Your task to perform on an android device: What does the iPhone 8 look like? Image 0: 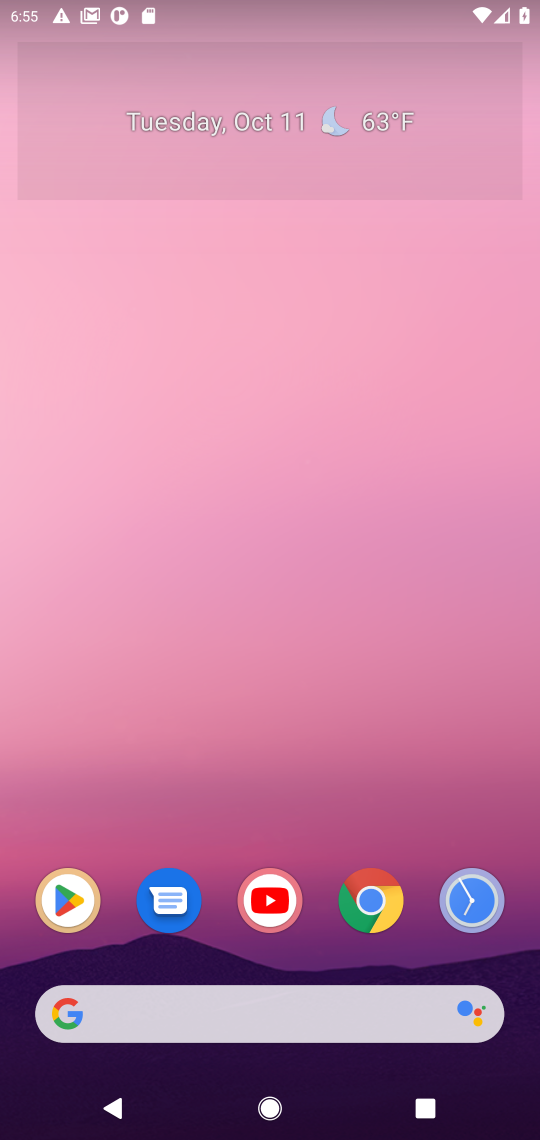
Step 0: click (367, 891)
Your task to perform on an android device: What does the iPhone 8 look like? Image 1: 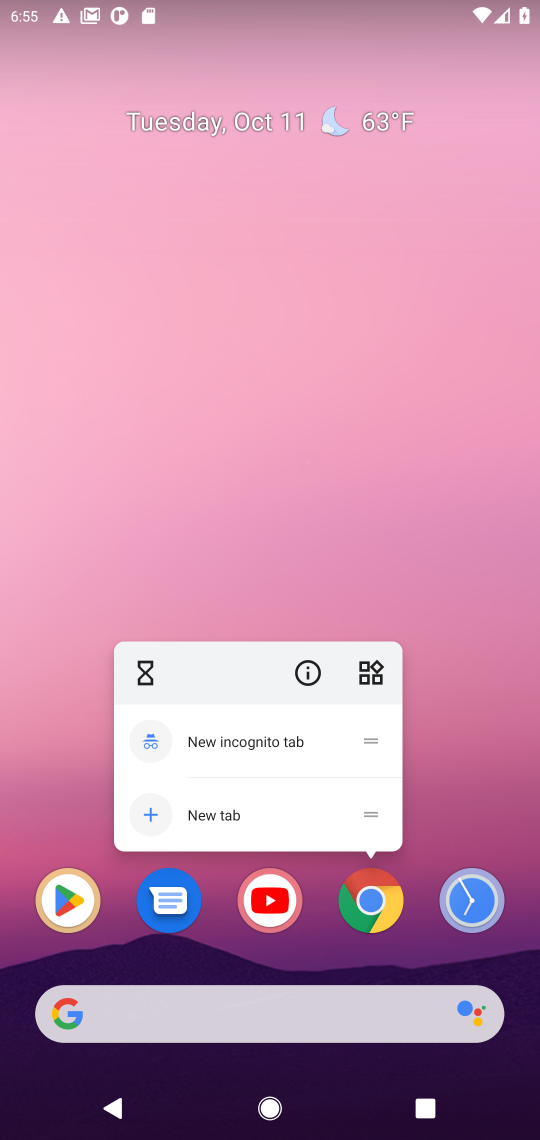
Step 1: click (385, 889)
Your task to perform on an android device: What does the iPhone 8 look like? Image 2: 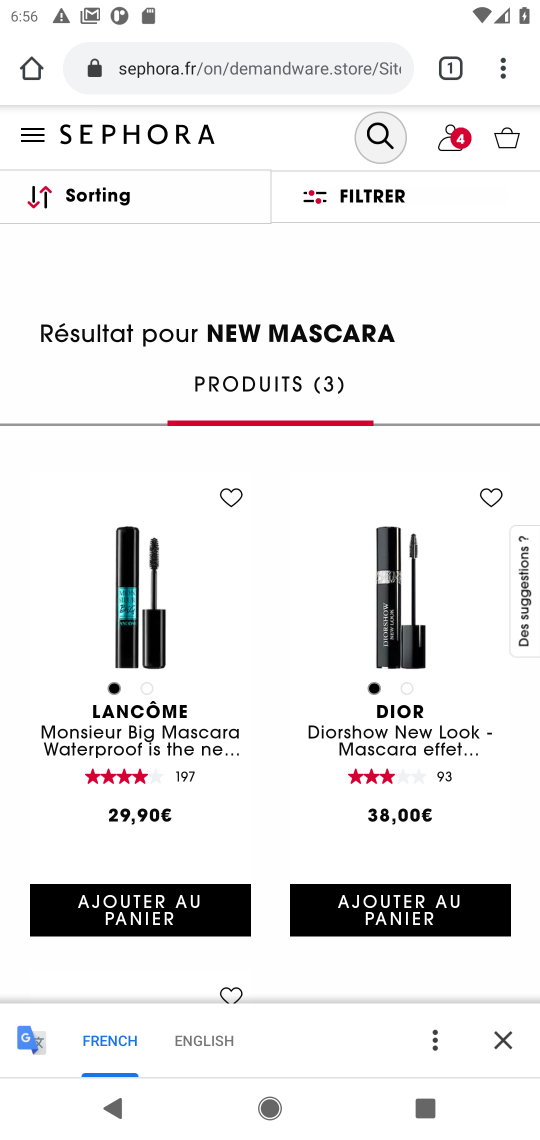
Step 2: click (155, 75)
Your task to perform on an android device: What does the iPhone 8 look like? Image 3: 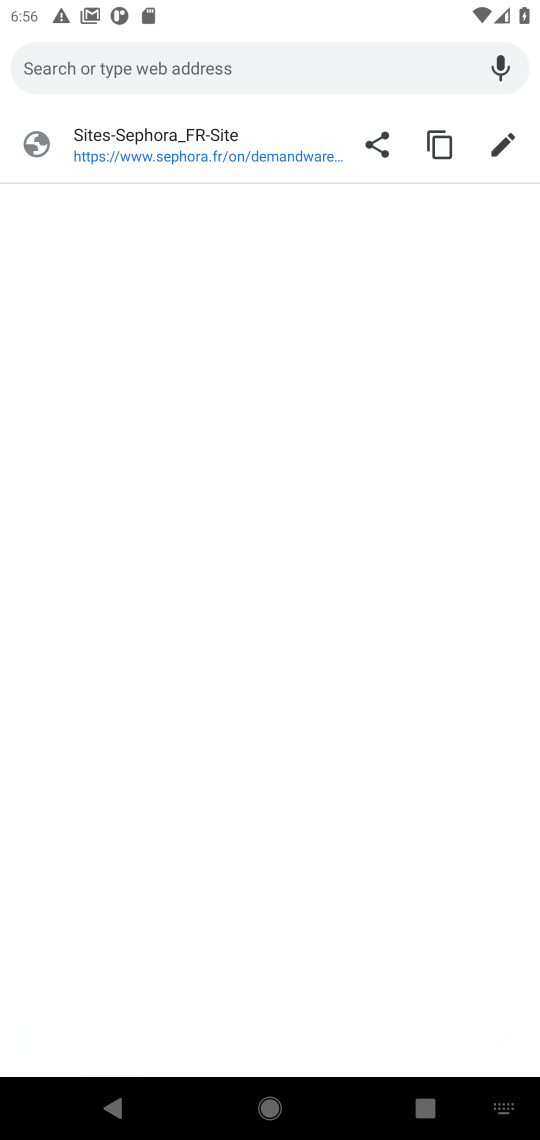
Step 3: type "What does the iPhone 8 look like"
Your task to perform on an android device: What does the iPhone 8 look like? Image 4: 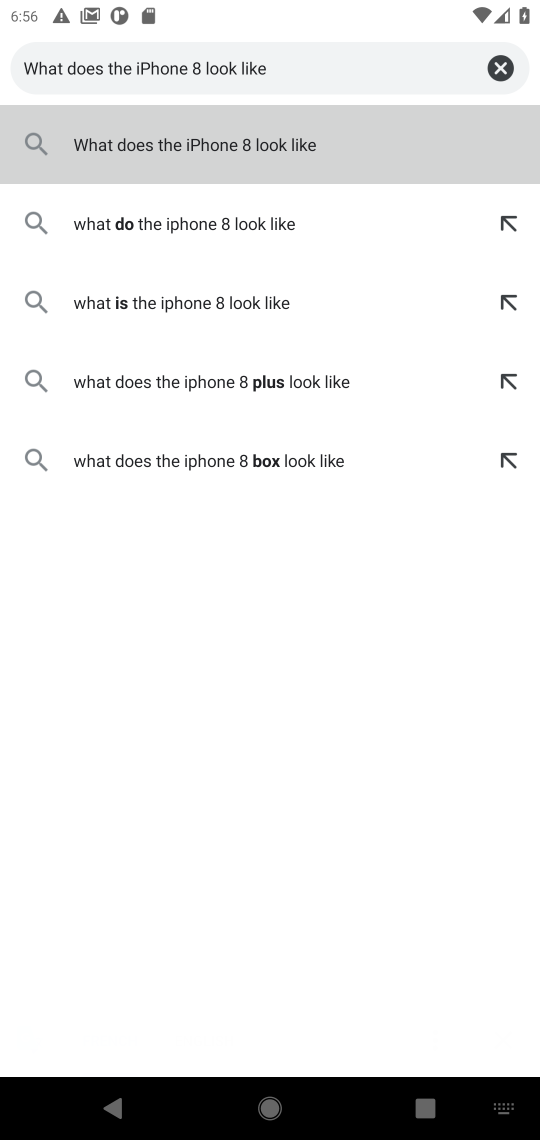
Step 4: press enter
Your task to perform on an android device: What does the iPhone 8 look like? Image 5: 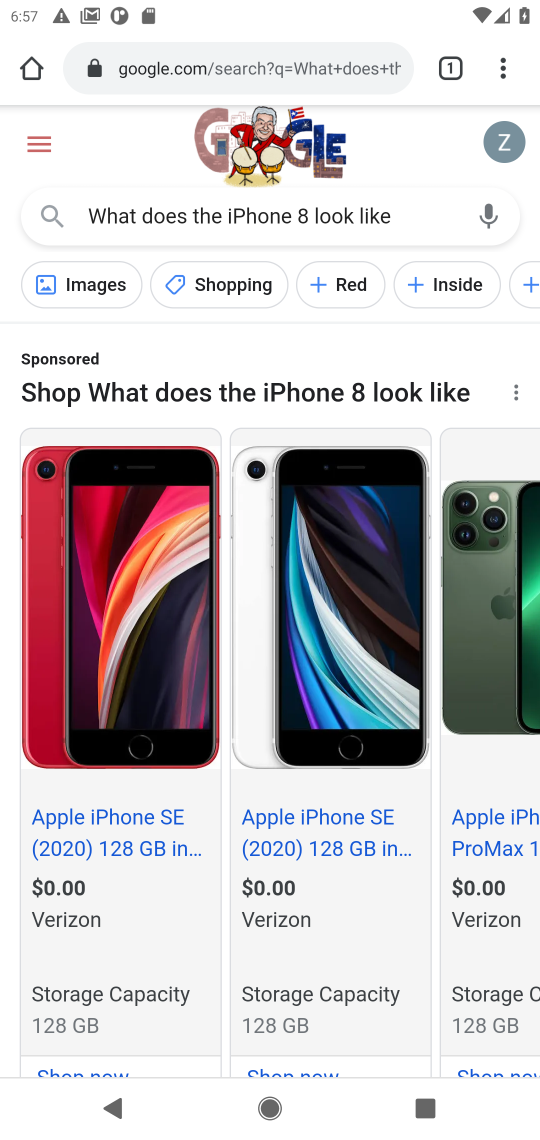
Step 5: task complete